Your task to perform on an android device: change notification settings in the gmail app Image 0: 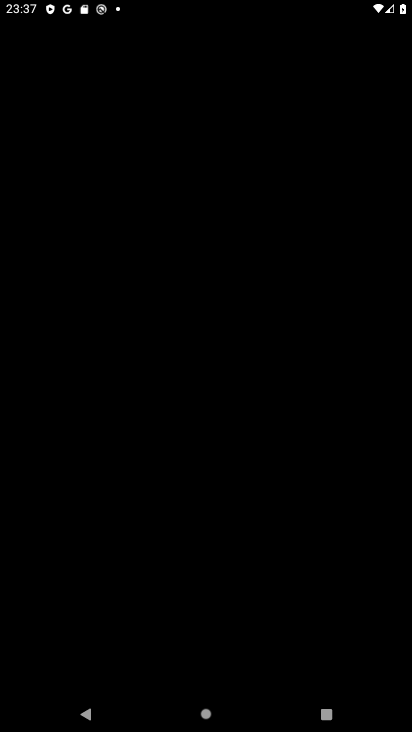
Step 0: press home button
Your task to perform on an android device: change notification settings in the gmail app Image 1: 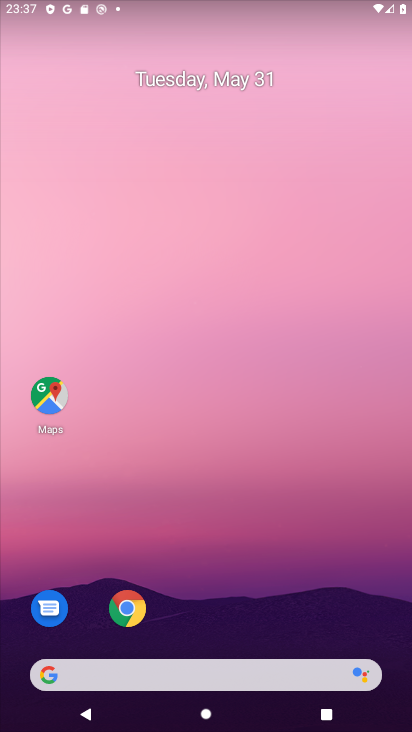
Step 1: drag from (234, 615) to (255, 1)
Your task to perform on an android device: change notification settings in the gmail app Image 2: 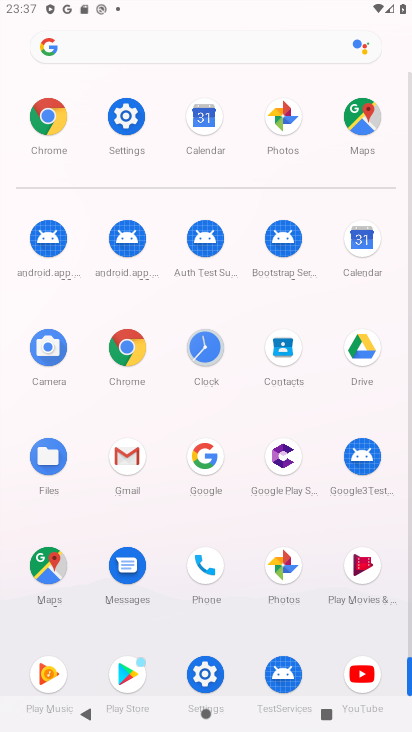
Step 2: click (132, 479)
Your task to perform on an android device: change notification settings in the gmail app Image 3: 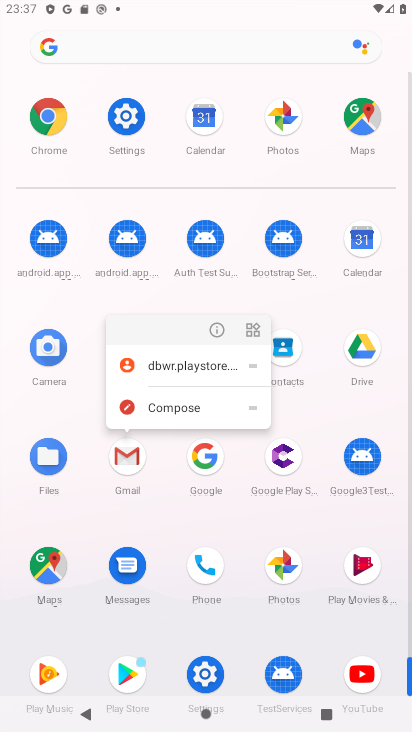
Step 3: click (211, 330)
Your task to perform on an android device: change notification settings in the gmail app Image 4: 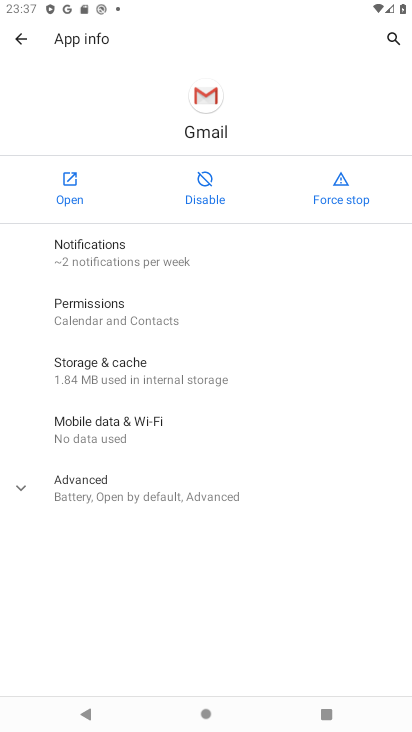
Step 4: click (128, 249)
Your task to perform on an android device: change notification settings in the gmail app Image 5: 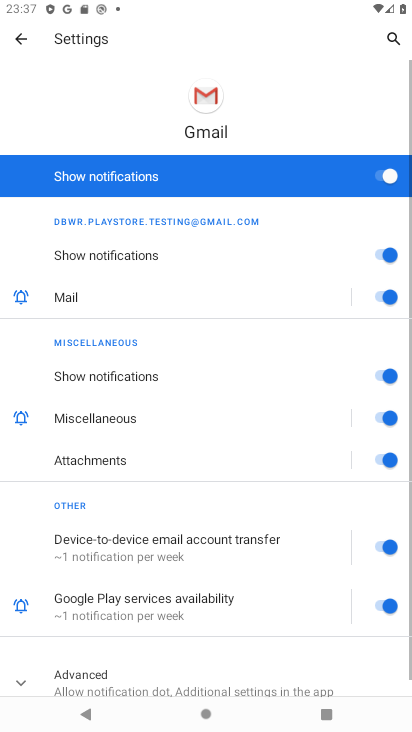
Step 5: click (323, 191)
Your task to perform on an android device: change notification settings in the gmail app Image 6: 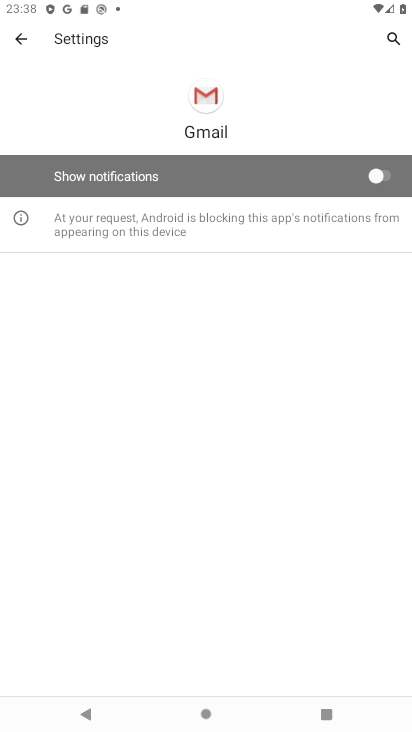
Step 6: task complete